Your task to perform on an android device: turn off smart reply in the gmail app Image 0: 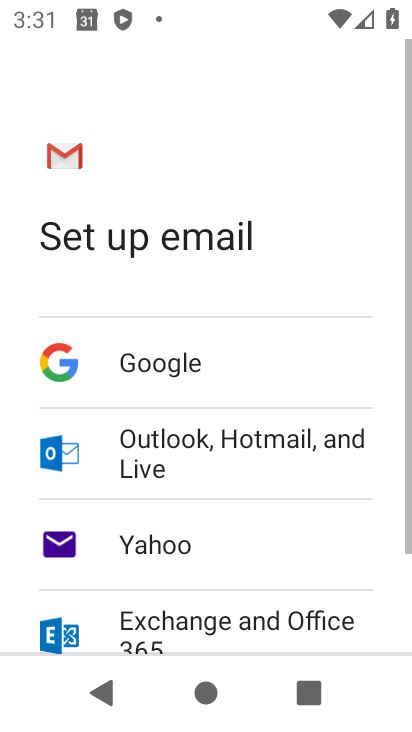
Step 0: press home button
Your task to perform on an android device: turn off smart reply in the gmail app Image 1: 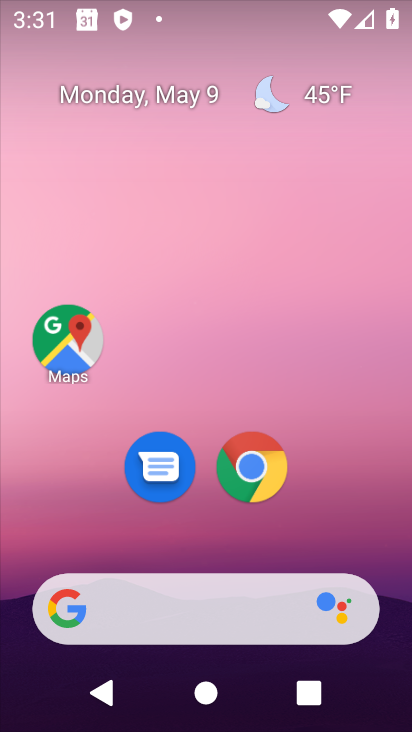
Step 1: drag from (315, 485) to (326, 163)
Your task to perform on an android device: turn off smart reply in the gmail app Image 2: 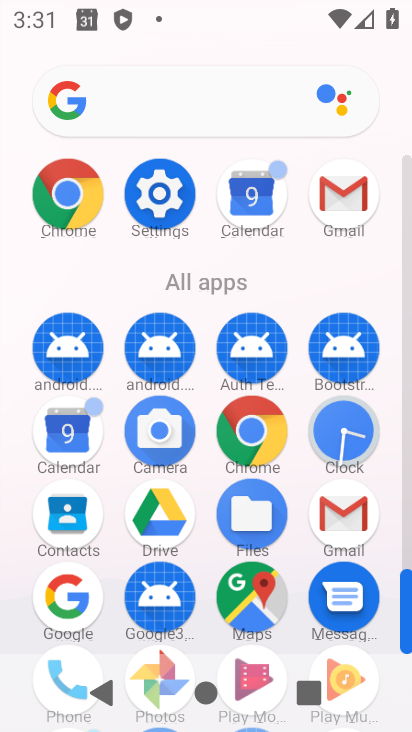
Step 2: click (353, 213)
Your task to perform on an android device: turn off smart reply in the gmail app Image 3: 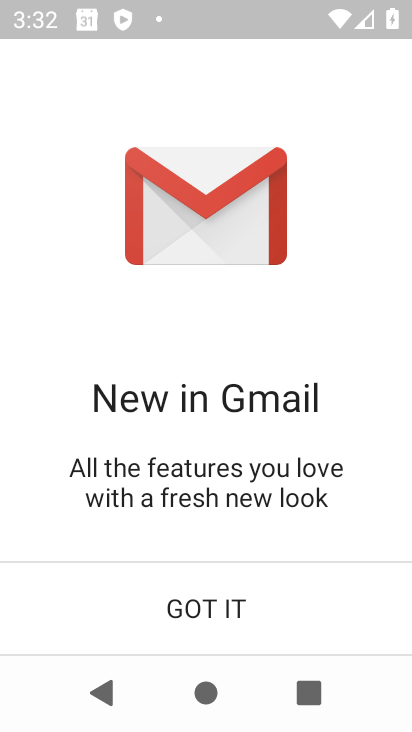
Step 3: click (220, 610)
Your task to perform on an android device: turn off smart reply in the gmail app Image 4: 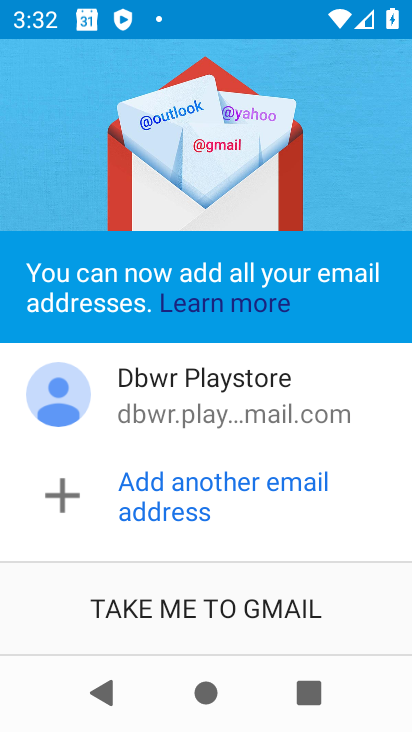
Step 4: click (294, 612)
Your task to perform on an android device: turn off smart reply in the gmail app Image 5: 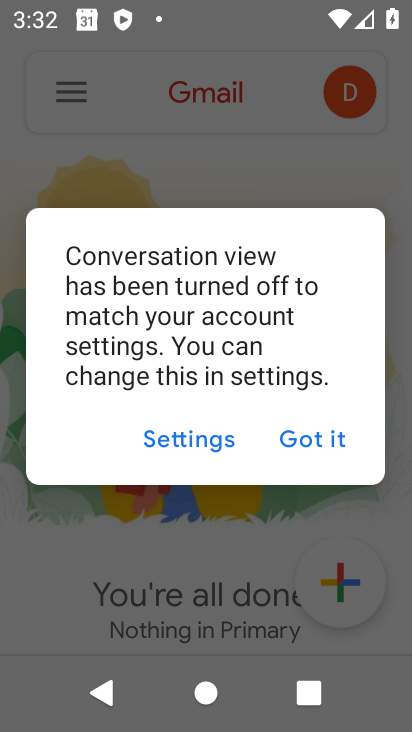
Step 5: click (312, 445)
Your task to perform on an android device: turn off smart reply in the gmail app Image 6: 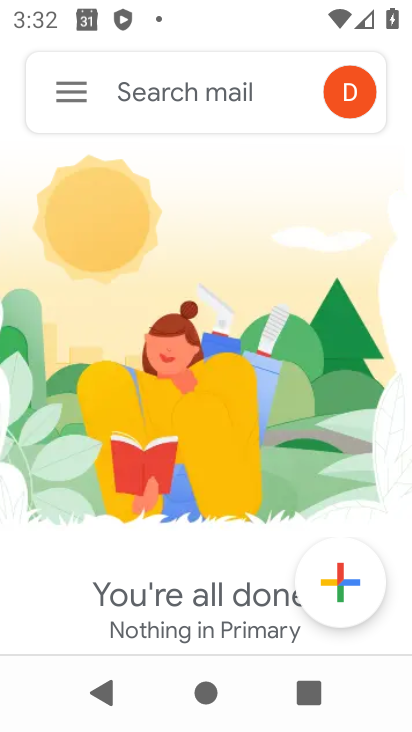
Step 6: click (74, 93)
Your task to perform on an android device: turn off smart reply in the gmail app Image 7: 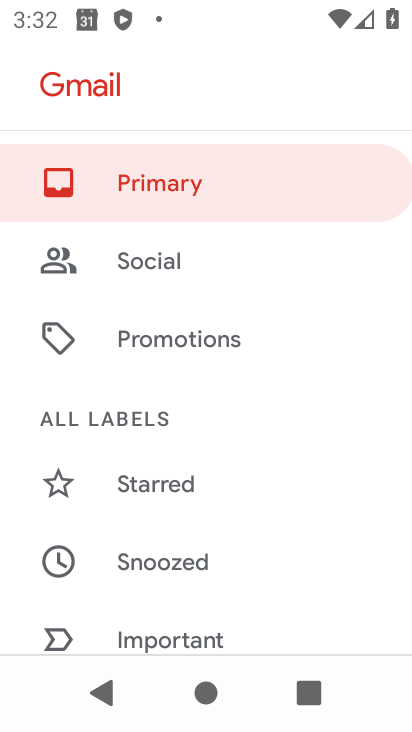
Step 7: drag from (162, 544) to (206, 223)
Your task to perform on an android device: turn off smart reply in the gmail app Image 8: 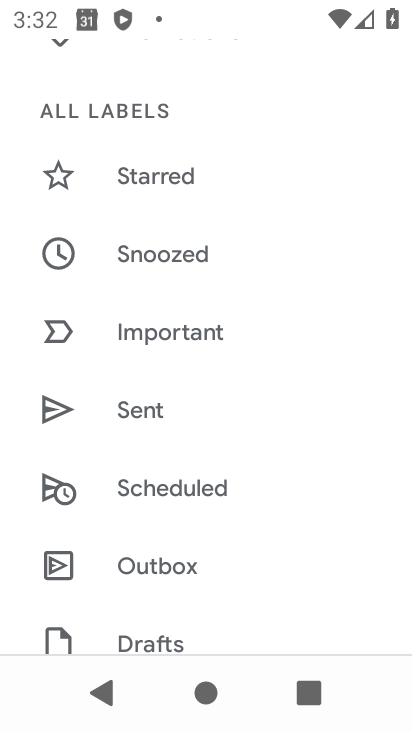
Step 8: drag from (198, 563) to (228, 202)
Your task to perform on an android device: turn off smart reply in the gmail app Image 9: 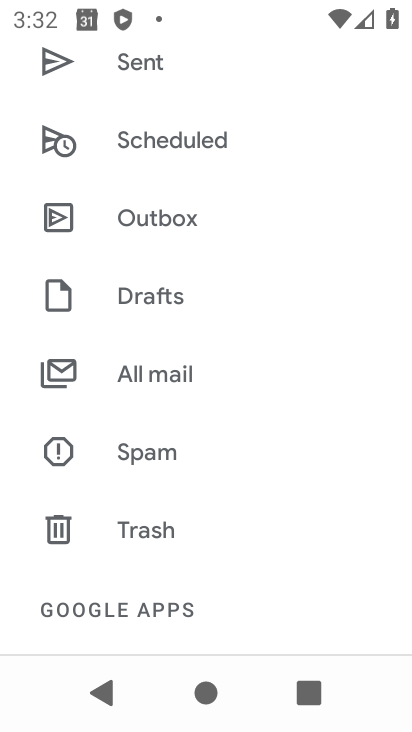
Step 9: drag from (214, 588) to (228, 220)
Your task to perform on an android device: turn off smart reply in the gmail app Image 10: 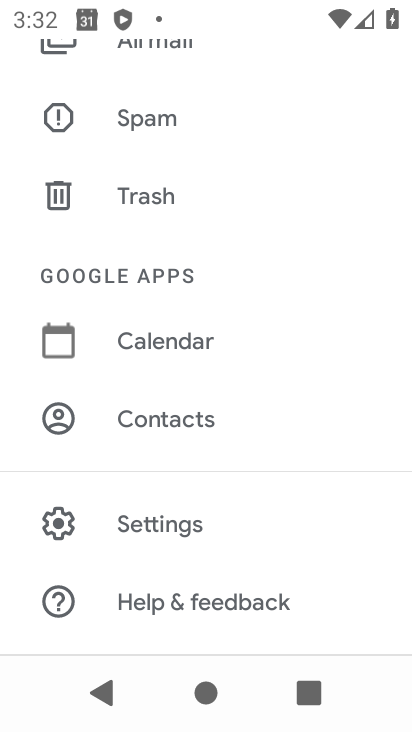
Step 10: click (156, 537)
Your task to perform on an android device: turn off smart reply in the gmail app Image 11: 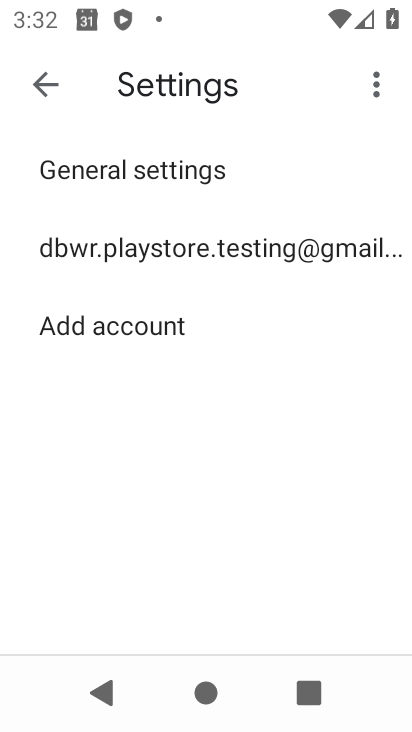
Step 11: click (176, 263)
Your task to perform on an android device: turn off smart reply in the gmail app Image 12: 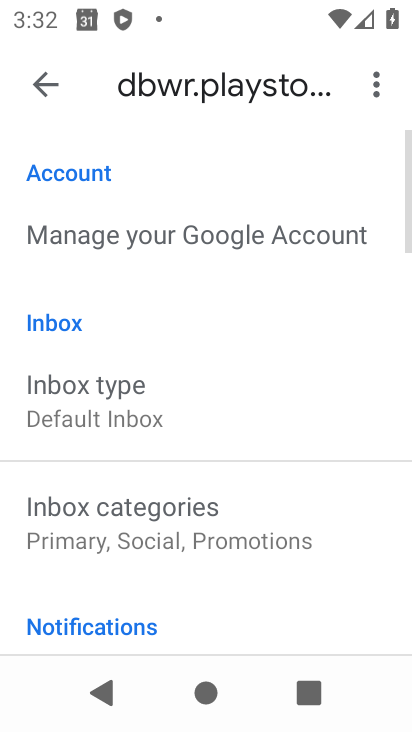
Step 12: drag from (176, 585) to (201, 223)
Your task to perform on an android device: turn off smart reply in the gmail app Image 13: 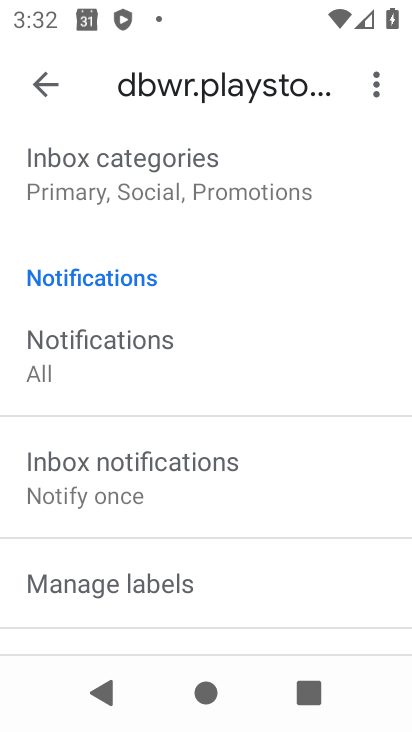
Step 13: drag from (235, 582) to (241, 203)
Your task to perform on an android device: turn off smart reply in the gmail app Image 14: 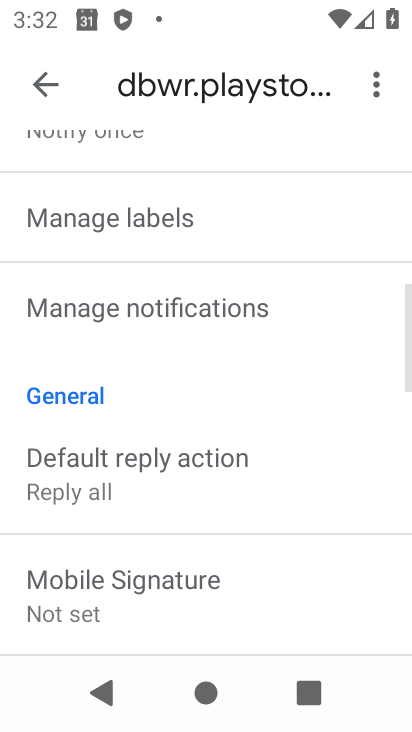
Step 14: drag from (239, 596) to (246, 256)
Your task to perform on an android device: turn off smart reply in the gmail app Image 15: 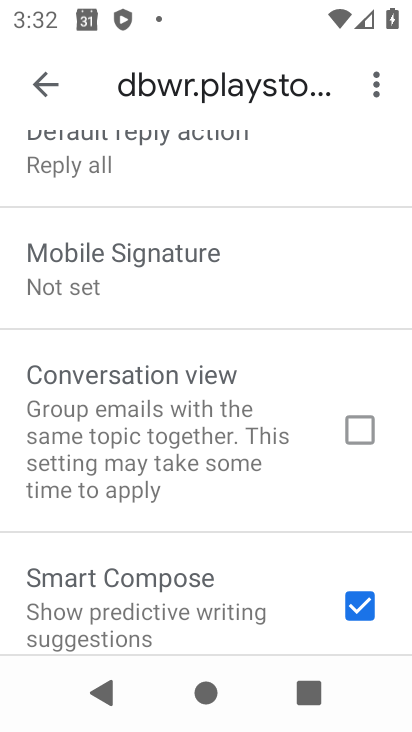
Step 15: drag from (266, 628) to (313, 206)
Your task to perform on an android device: turn off smart reply in the gmail app Image 16: 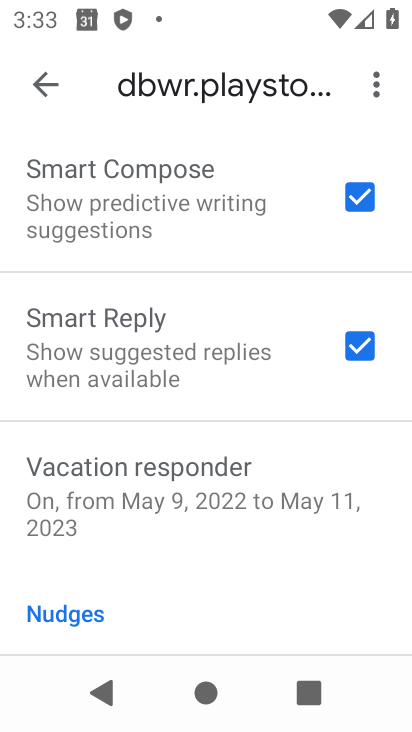
Step 16: click (377, 342)
Your task to perform on an android device: turn off smart reply in the gmail app Image 17: 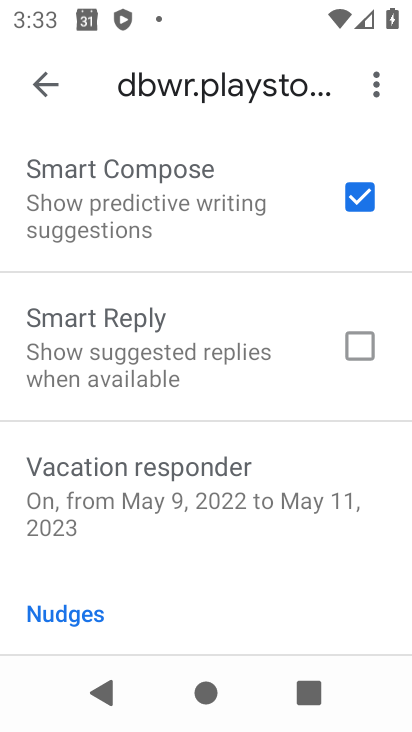
Step 17: task complete